Your task to perform on an android device: Do I have any events today? Image 0: 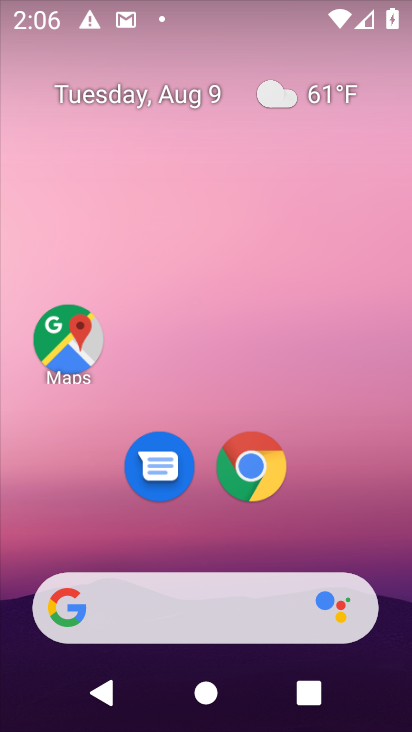
Step 0: drag from (216, 473) to (249, 20)
Your task to perform on an android device: Do I have any events today? Image 1: 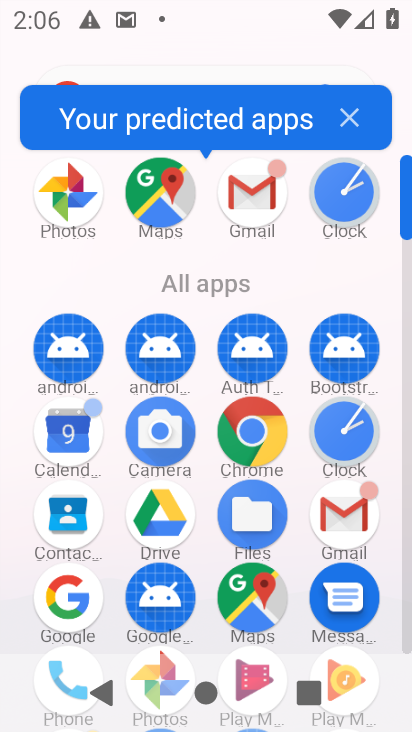
Step 1: click (81, 429)
Your task to perform on an android device: Do I have any events today? Image 2: 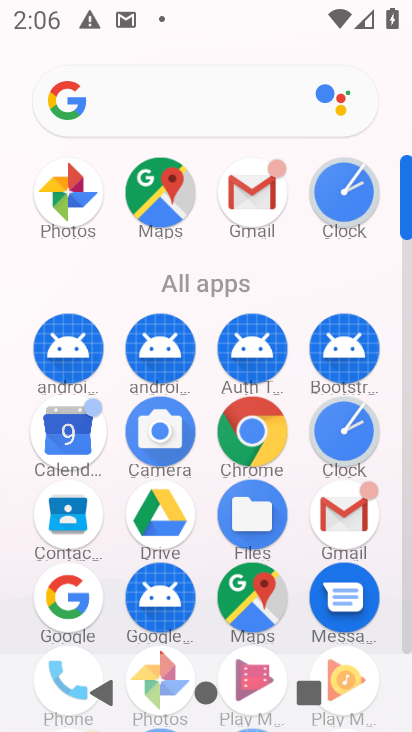
Step 2: click (67, 439)
Your task to perform on an android device: Do I have any events today? Image 3: 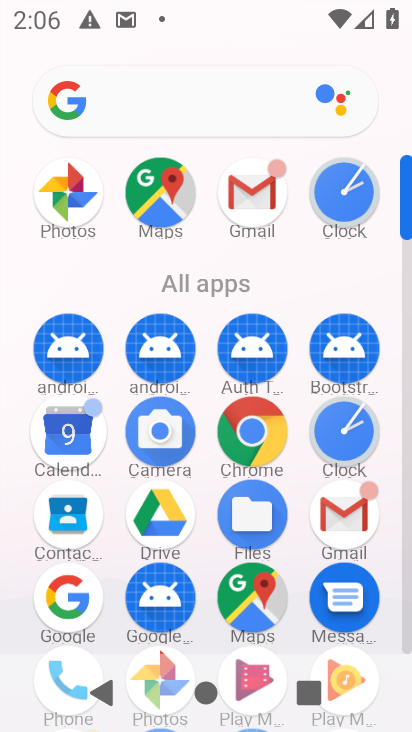
Step 3: drag from (209, 376) to (256, 36)
Your task to perform on an android device: Do I have any events today? Image 4: 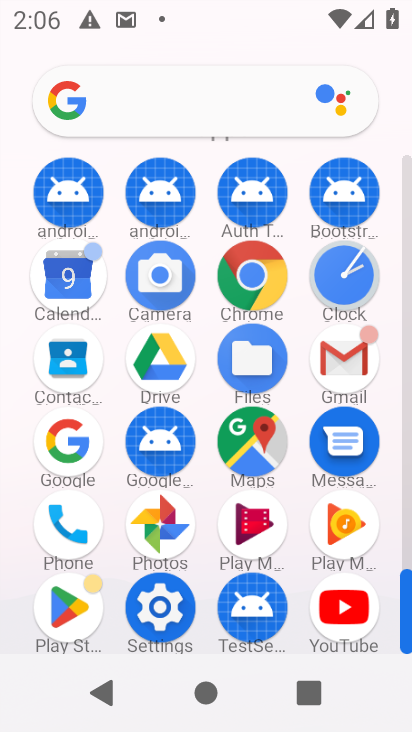
Step 4: click (79, 274)
Your task to perform on an android device: Do I have any events today? Image 5: 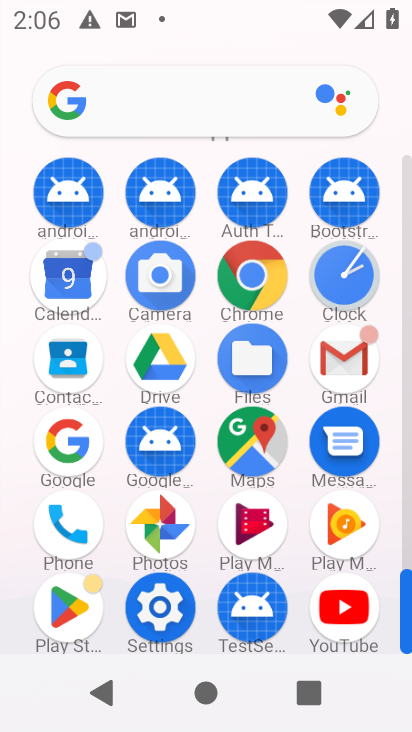
Step 5: drag from (253, 248) to (193, 697)
Your task to perform on an android device: Do I have any events today? Image 6: 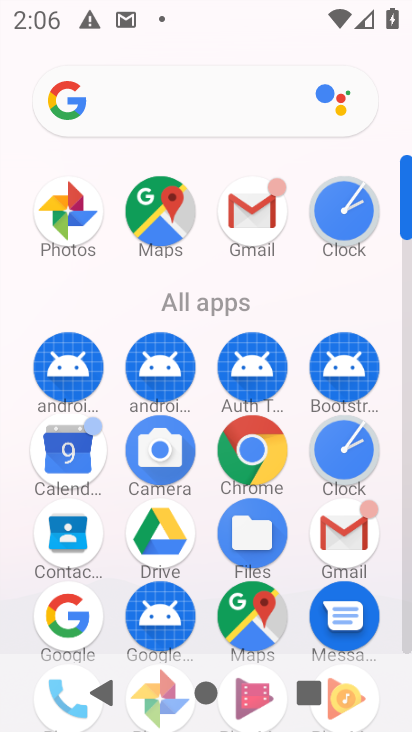
Step 6: drag from (233, 531) to (289, 131)
Your task to perform on an android device: Do I have any events today? Image 7: 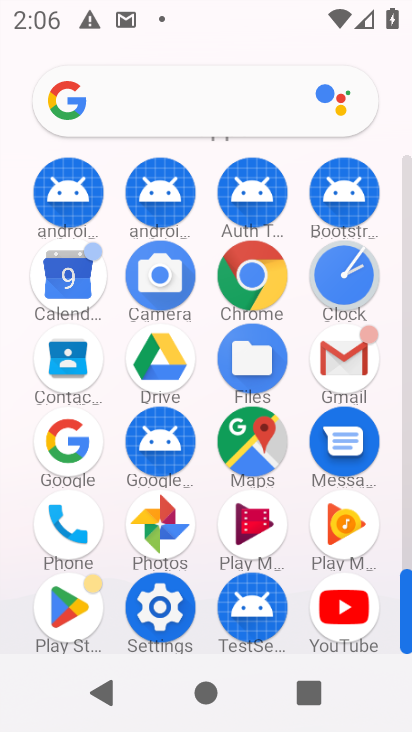
Step 7: click (92, 249)
Your task to perform on an android device: Do I have any events today? Image 8: 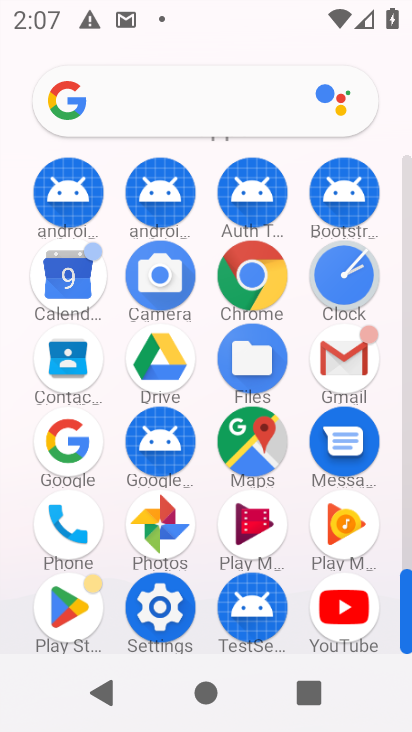
Step 8: click (76, 274)
Your task to perform on an android device: Do I have any events today? Image 9: 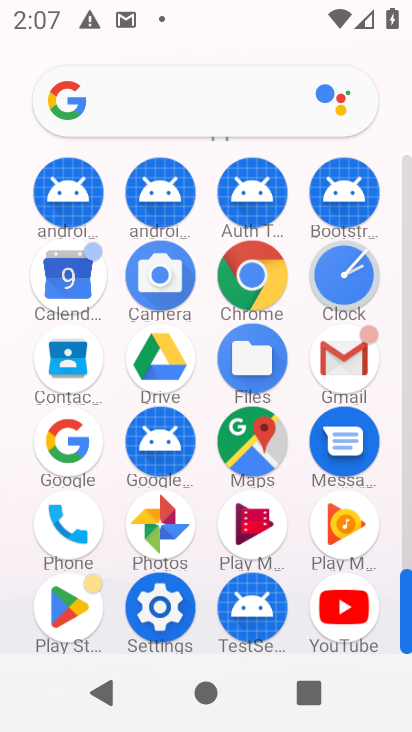
Step 9: task complete